Your task to perform on an android device: Open the web browser Image 0: 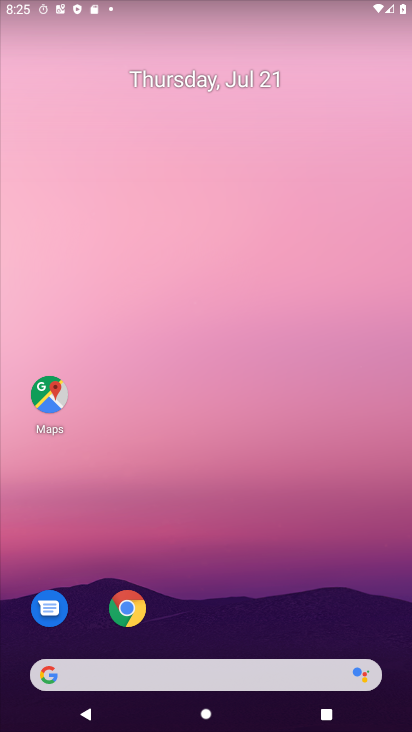
Step 0: press home button
Your task to perform on an android device: Open the web browser Image 1: 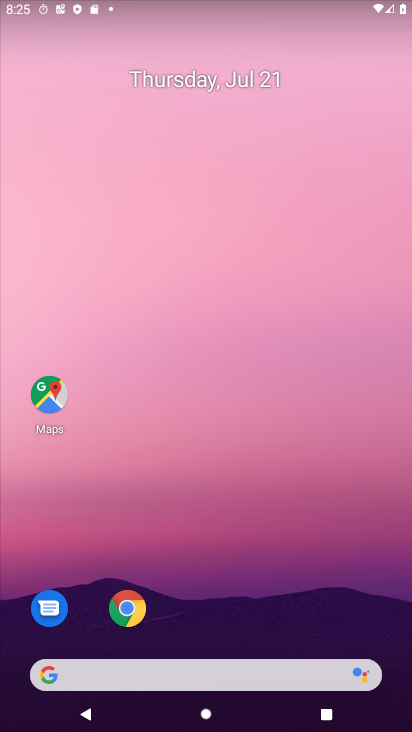
Step 1: drag from (301, 644) to (316, 4)
Your task to perform on an android device: Open the web browser Image 2: 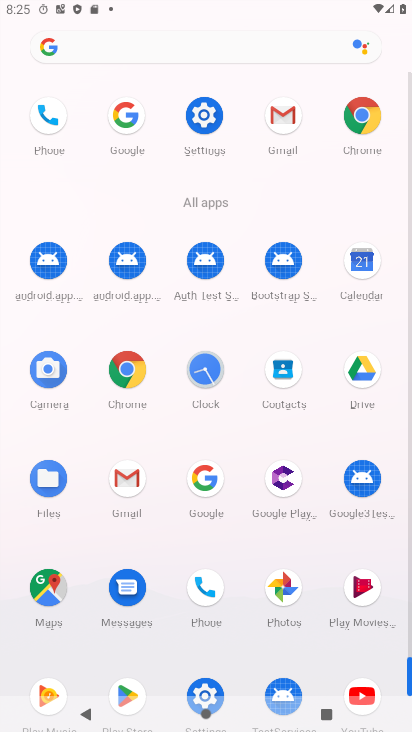
Step 2: click (149, 394)
Your task to perform on an android device: Open the web browser Image 3: 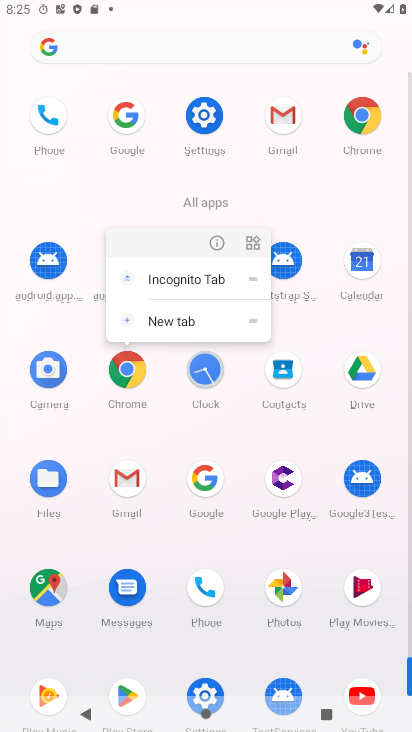
Step 3: click (149, 394)
Your task to perform on an android device: Open the web browser Image 4: 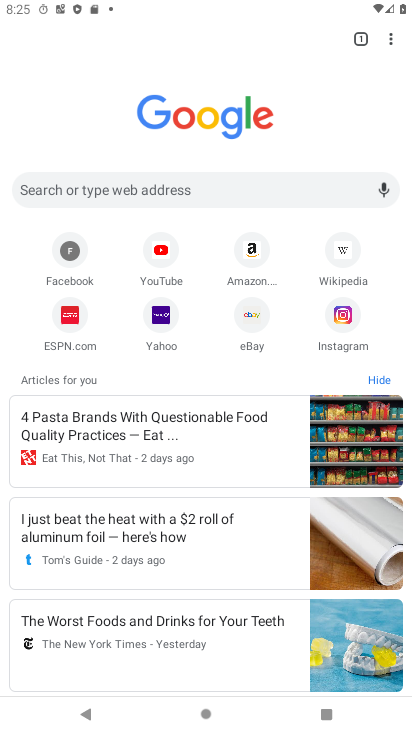
Step 4: drag from (390, 43) to (176, 76)
Your task to perform on an android device: Open the web browser Image 5: 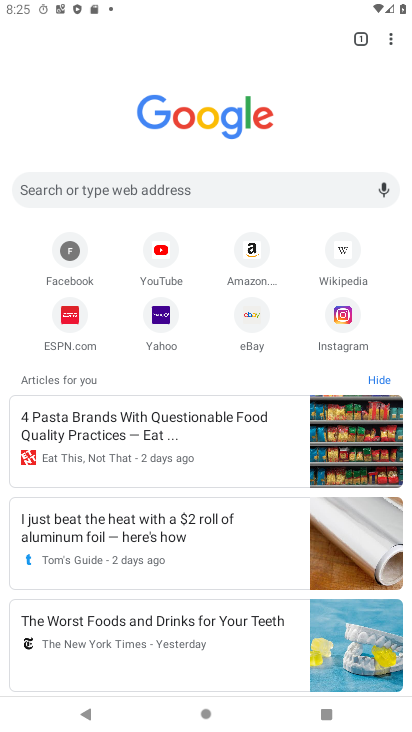
Step 5: click (233, 193)
Your task to perform on an android device: Open the web browser Image 6: 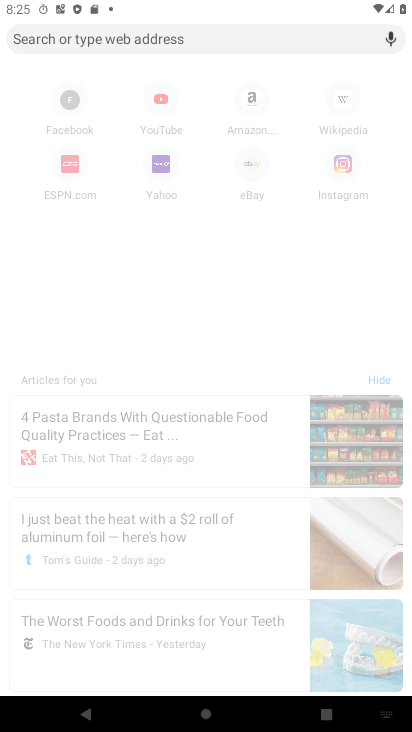
Step 6: type "wed browser"
Your task to perform on an android device: Open the web browser Image 7: 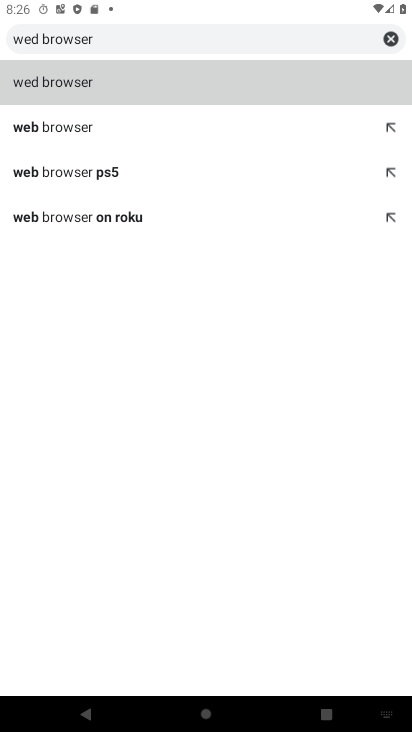
Step 7: click (282, 72)
Your task to perform on an android device: Open the web browser Image 8: 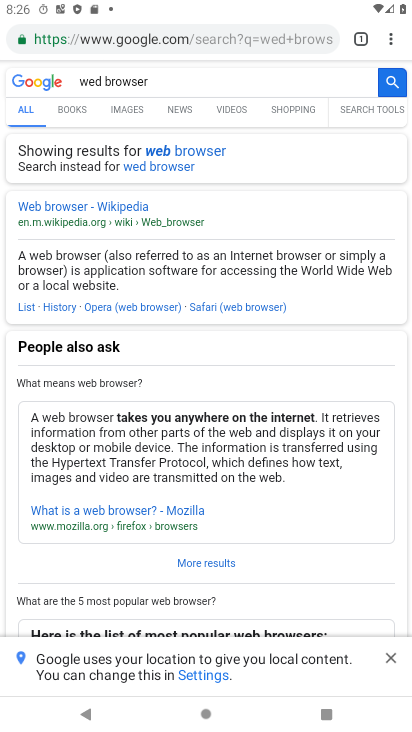
Step 8: task complete